Your task to perform on an android device: Go to location settings Image 0: 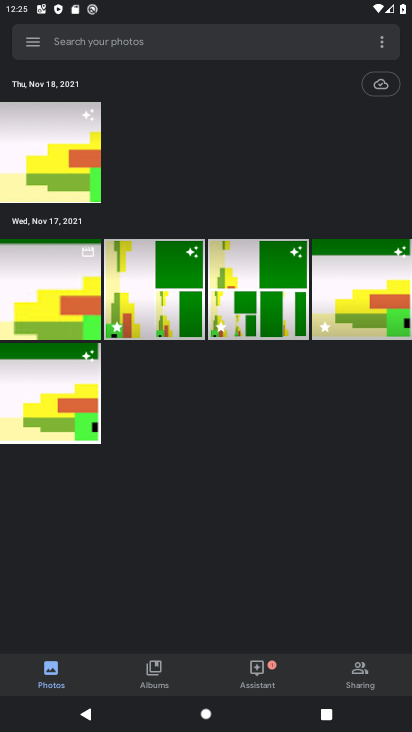
Step 0: press home button
Your task to perform on an android device: Go to location settings Image 1: 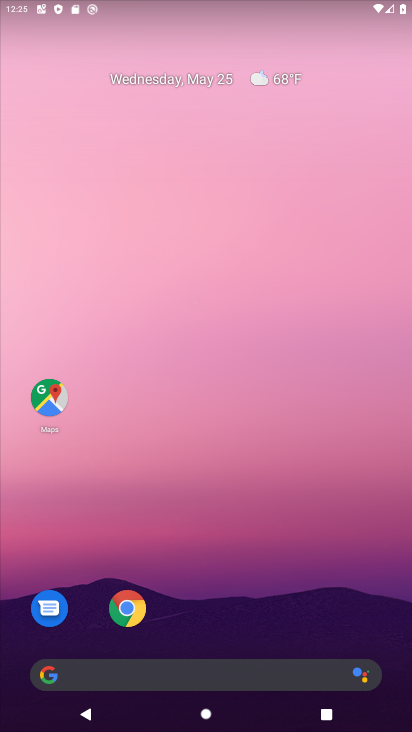
Step 1: drag from (262, 629) to (254, 133)
Your task to perform on an android device: Go to location settings Image 2: 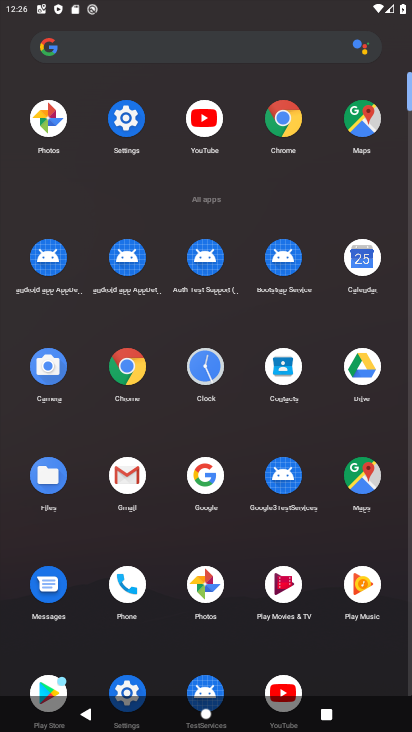
Step 2: click (122, 684)
Your task to perform on an android device: Go to location settings Image 3: 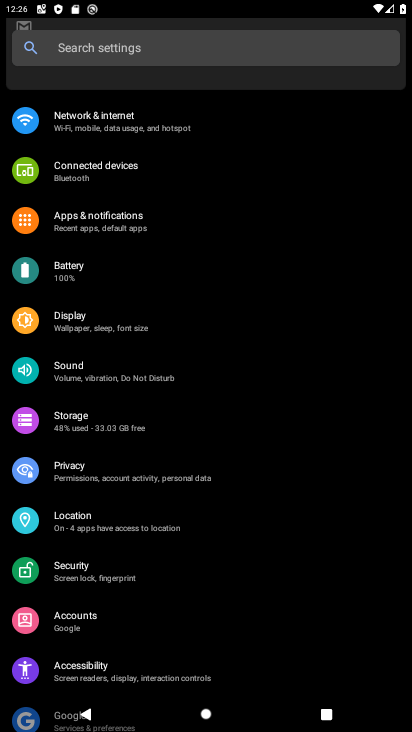
Step 3: click (141, 524)
Your task to perform on an android device: Go to location settings Image 4: 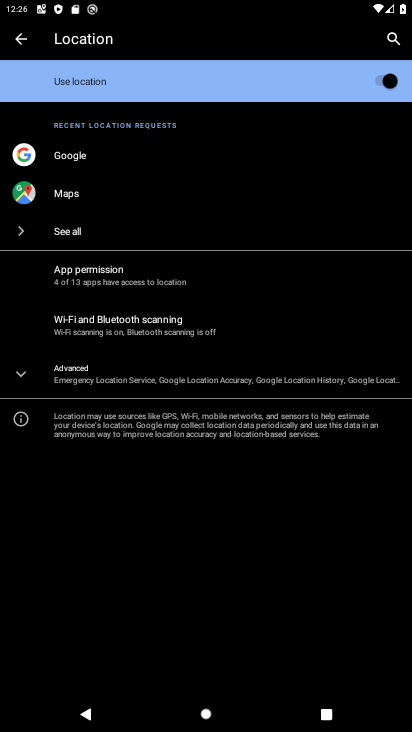
Step 4: task complete